Your task to perform on an android device: Show me recent news Image 0: 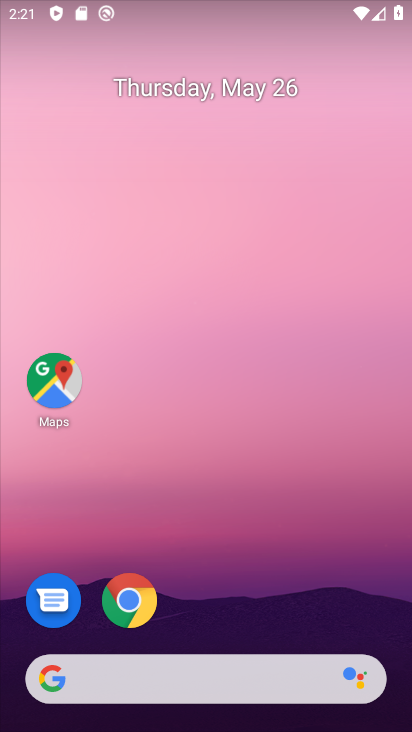
Step 0: drag from (3, 489) to (400, 321)
Your task to perform on an android device: Show me recent news Image 1: 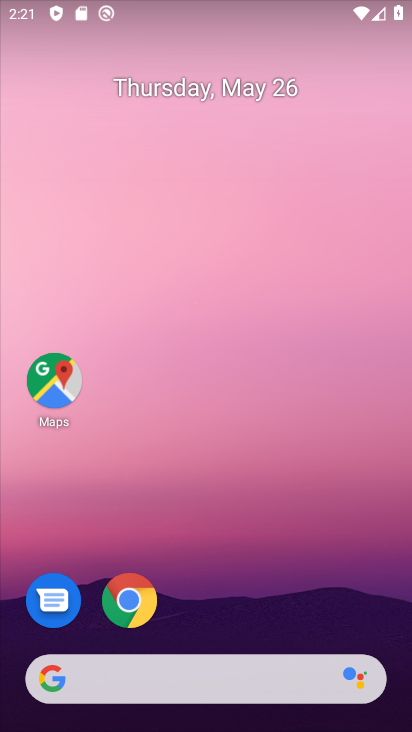
Step 1: task complete